Your task to perform on an android device: turn off javascript in the chrome app Image 0: 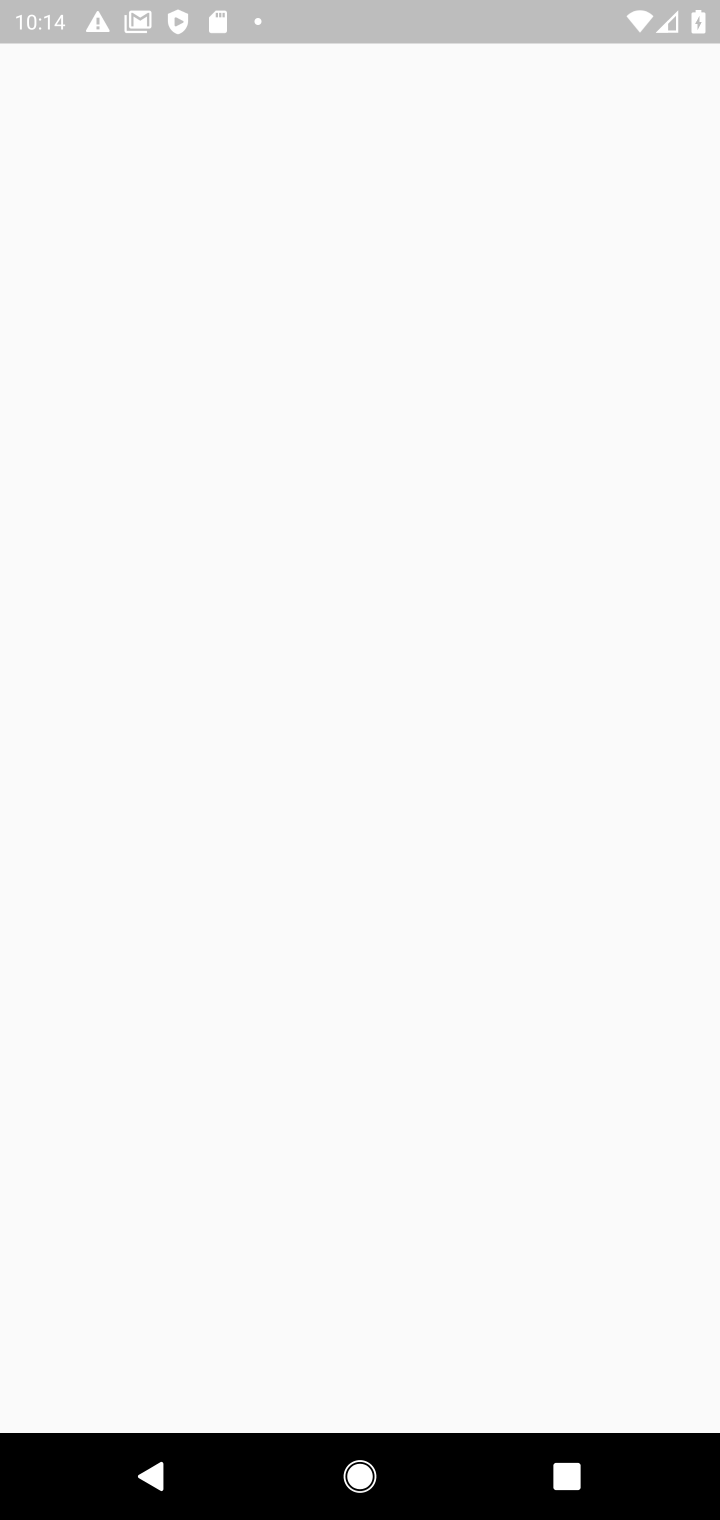
Step 0: press home button
Your task to perform on an android device: turn off javascript in the chrome app Image 1: 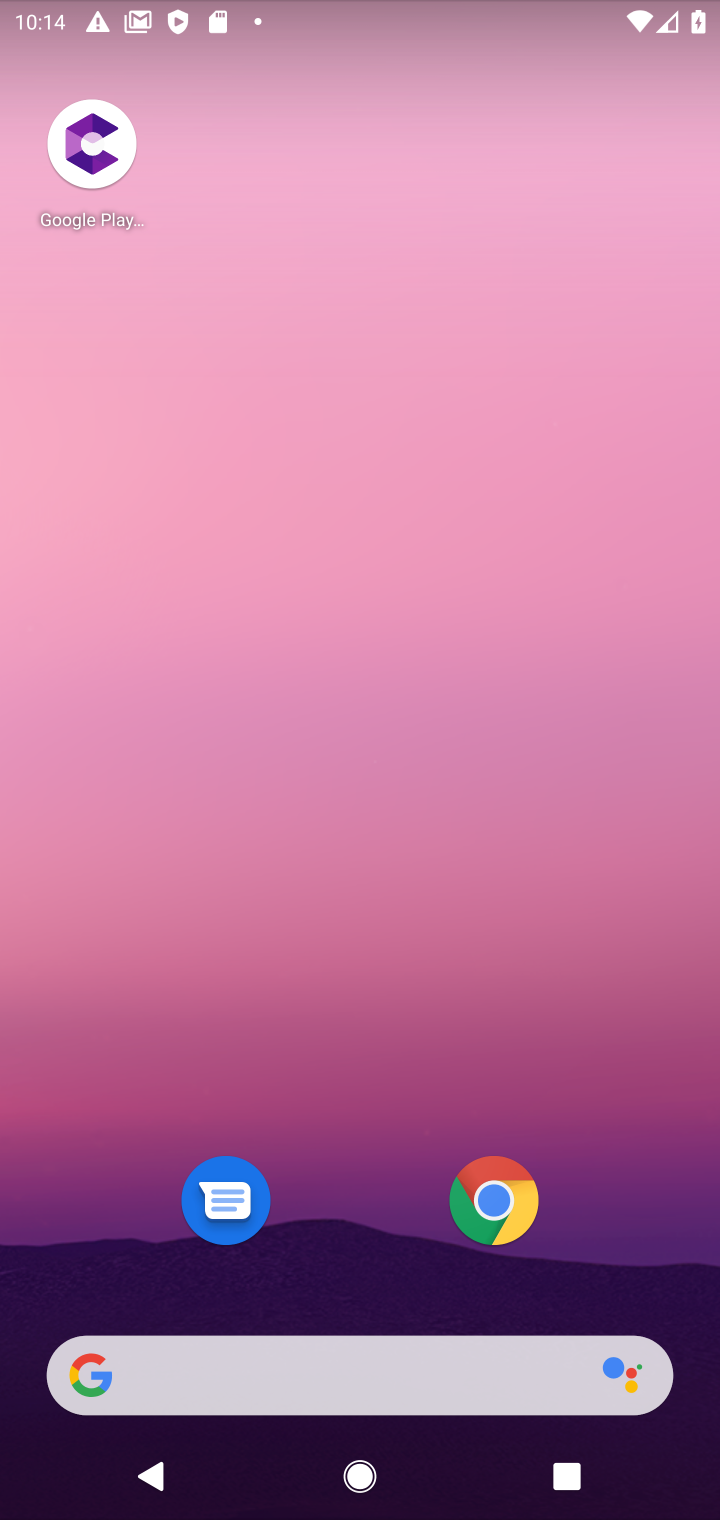
Step 1: click (504, 1211)
Your task to perform on an android device: turn off javascript in the chrome app Image 2: 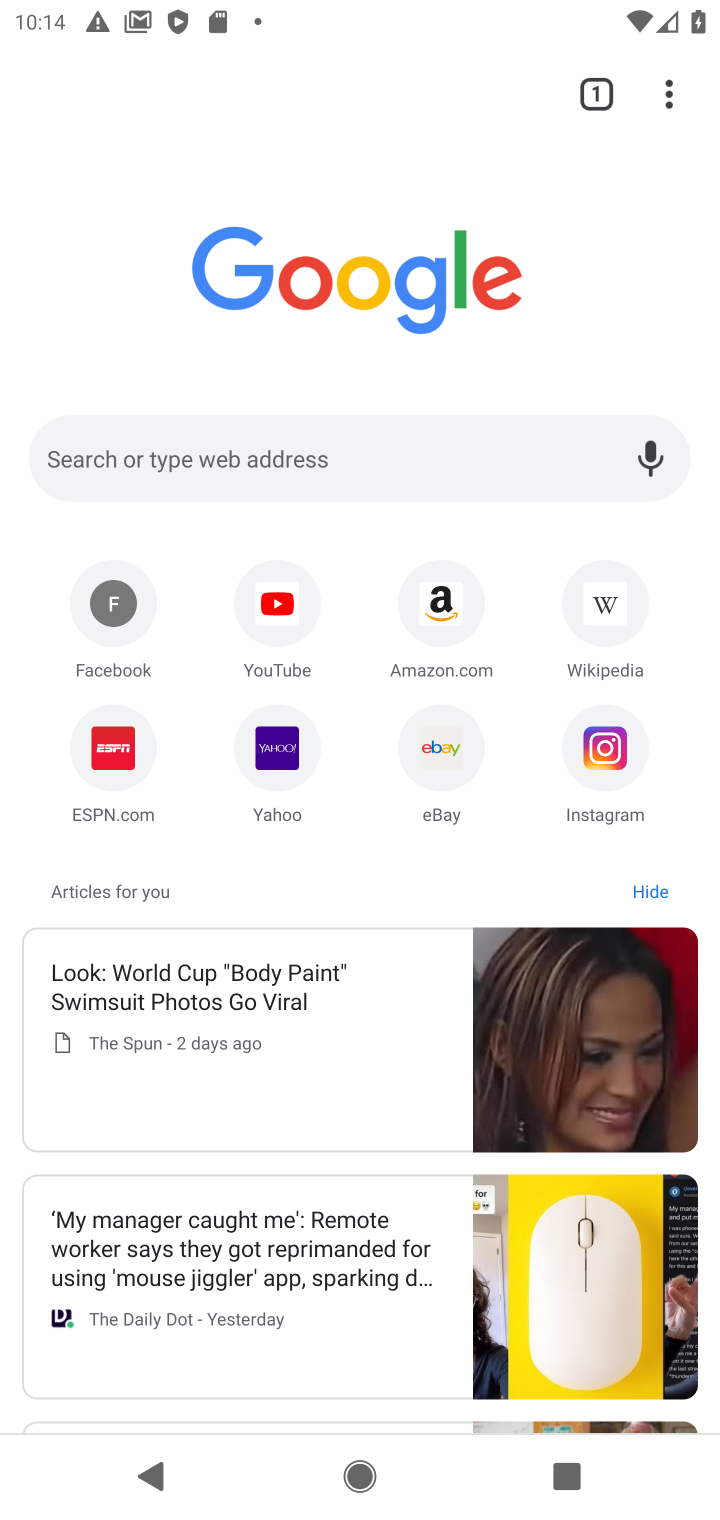
Step 2: click (666, 104)
Your task to perform on an android device: turn off javascript in the chrome app Image 3: 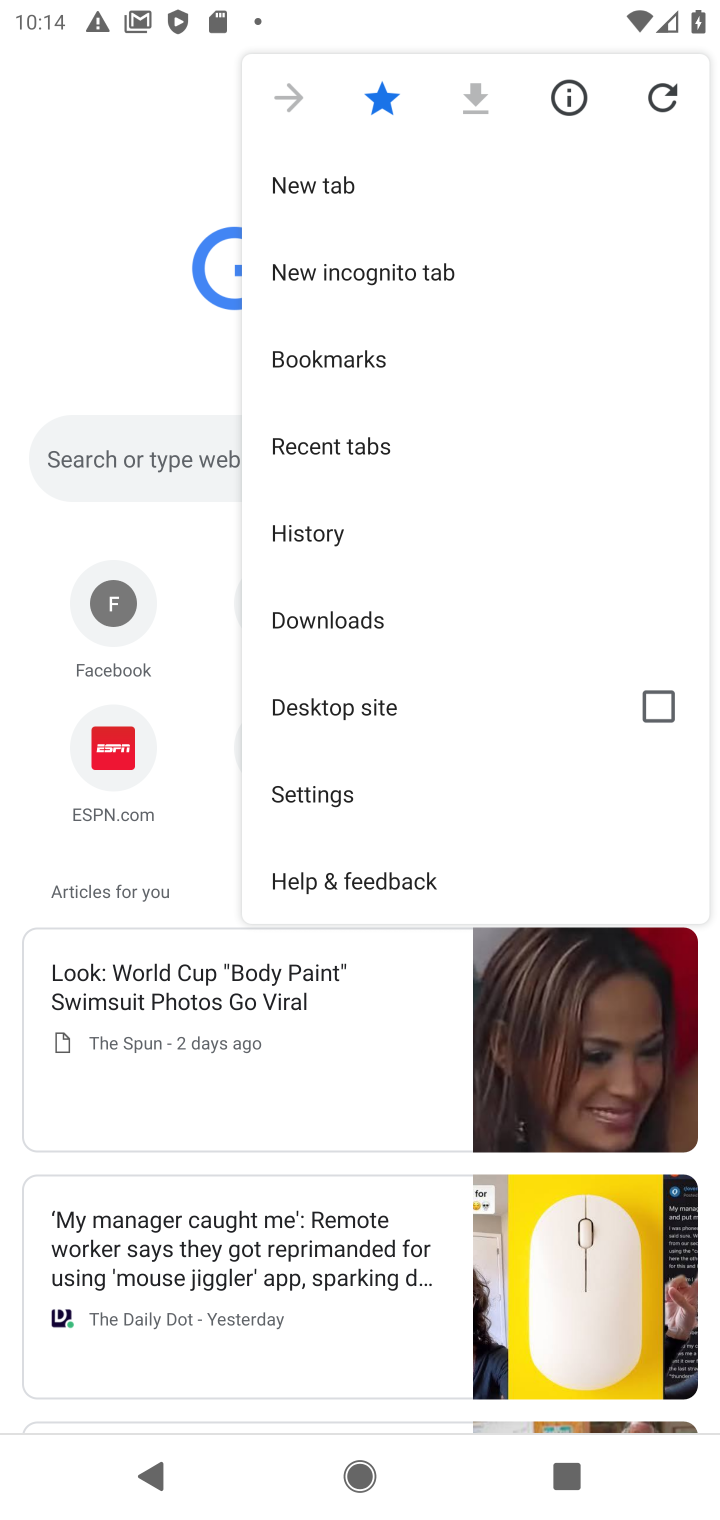
Step 3: click (307, 795)
Your task to perform on an android device: turn off javascript in the chrome app Image 4: 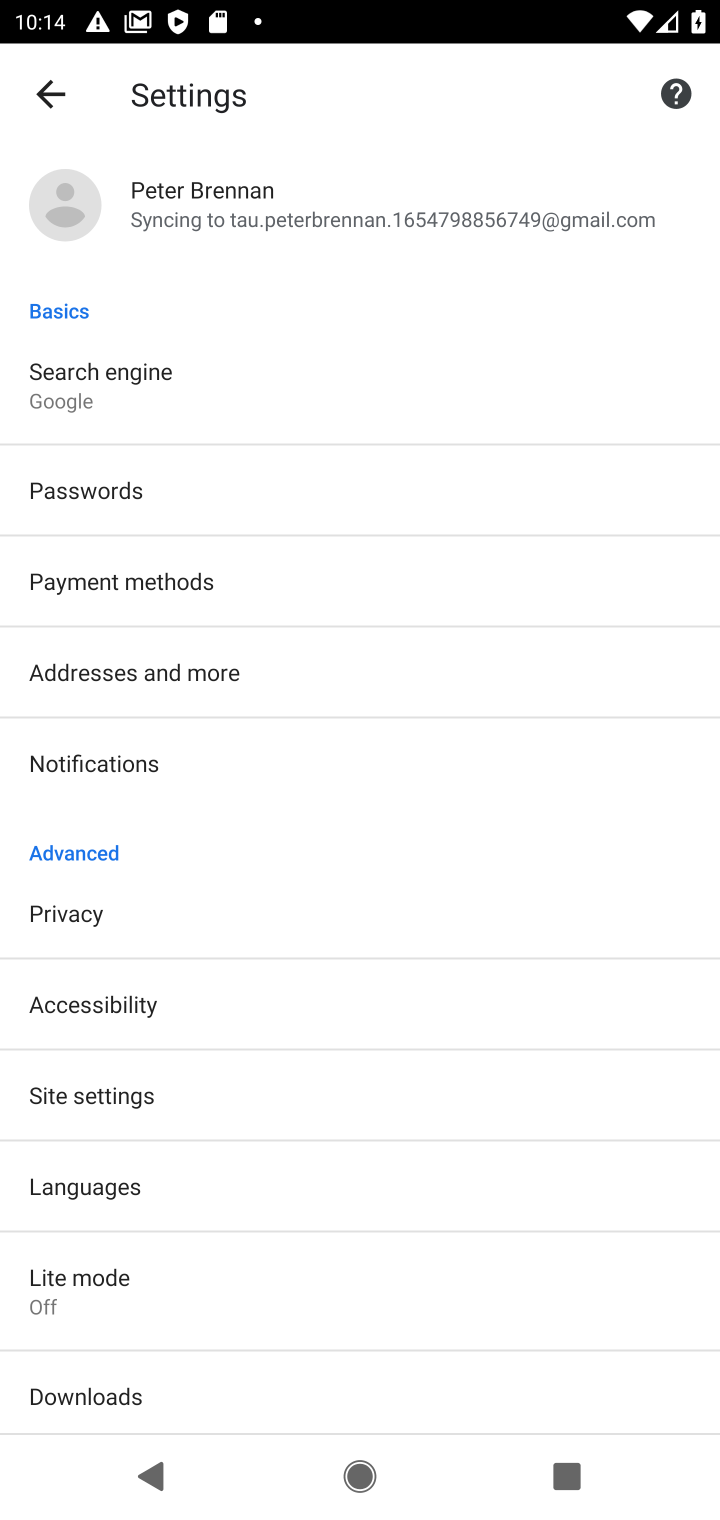
Step 4: click (99, 1099)
Your task to perform on an android device: turn off javascript in the chrome app Image 5: 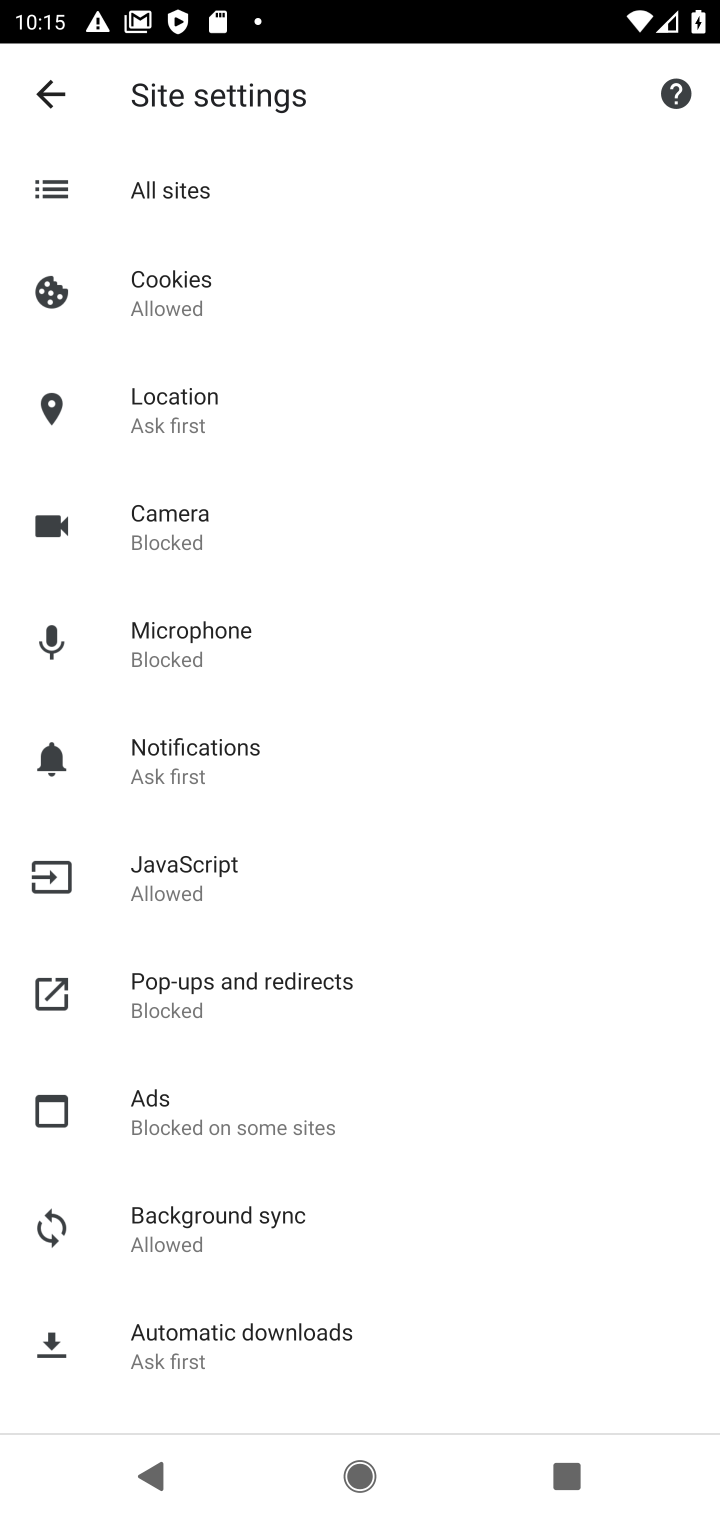
Step 5: click (184, 865)
Your task to perform on an android device: turn off javascript in the chrome app Image 6: 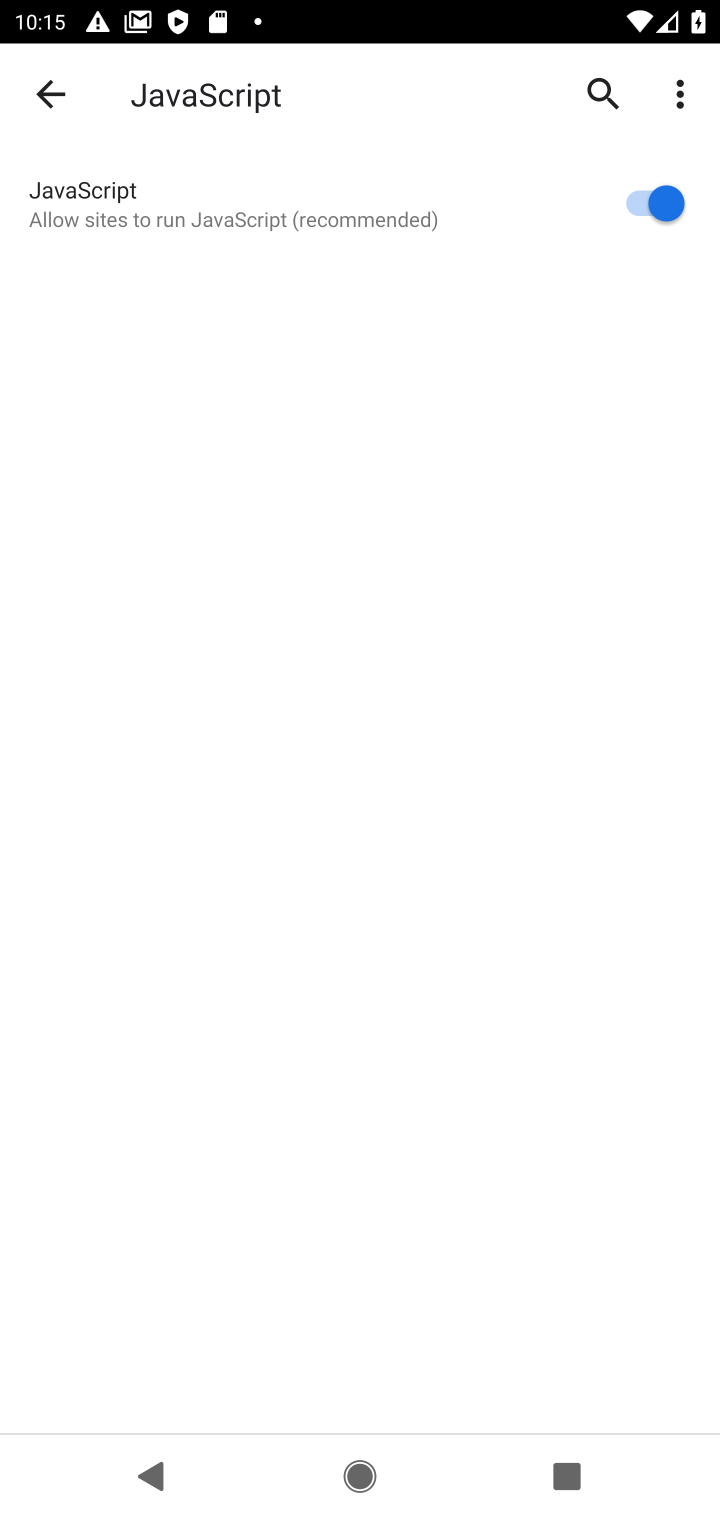
Step 6: click (626, 191)
Your task to perform on an android device: turn off javascript in the chrome app Image 7: 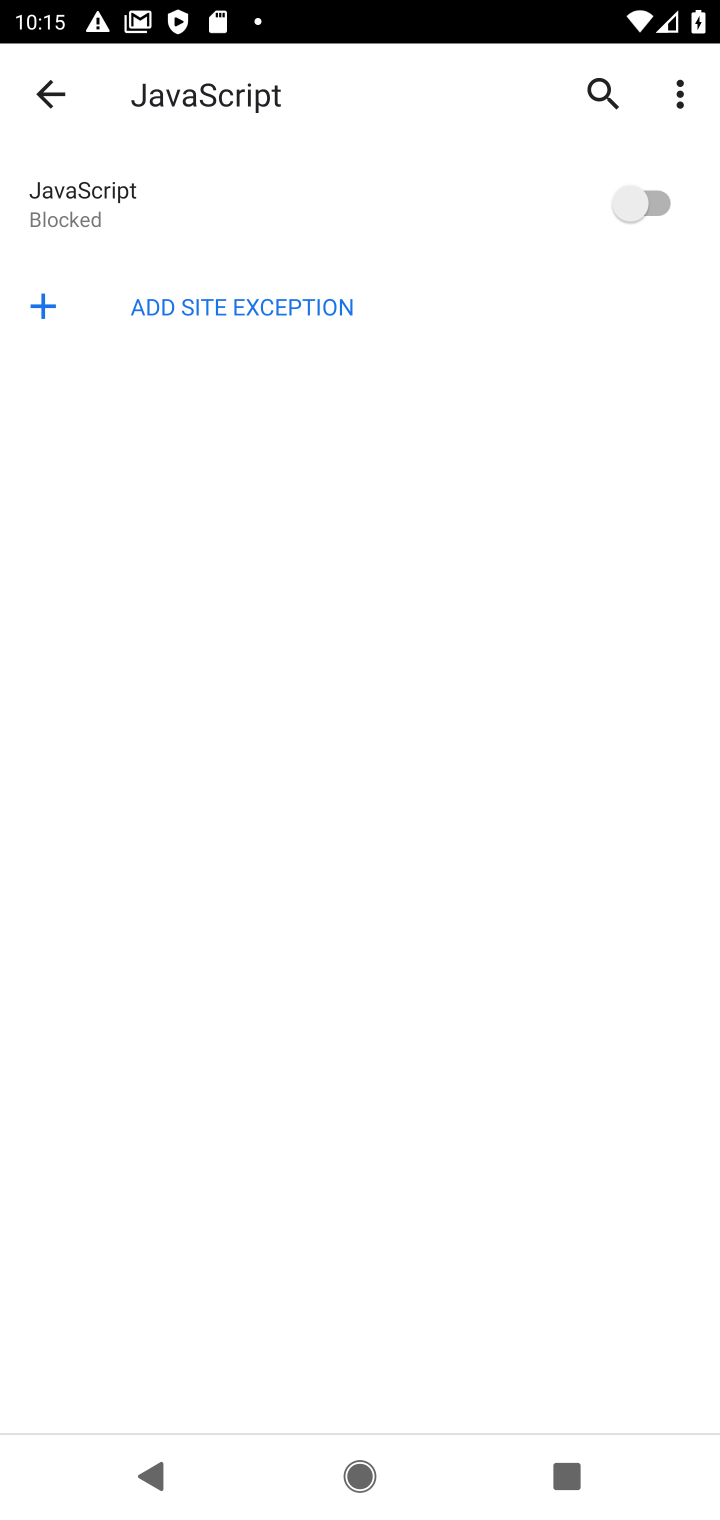
Step 7: task complete